Your task to perform on an android device: toggle wifi Image 0: 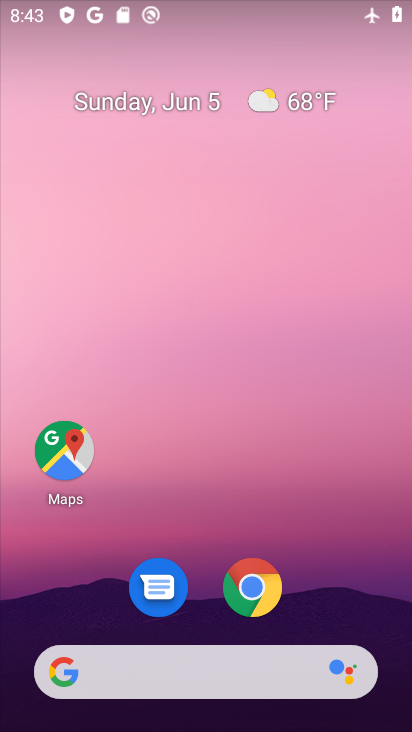
Step 0: click (398, 475)
Your task to perform on an android device: toggle wifi Image 1: 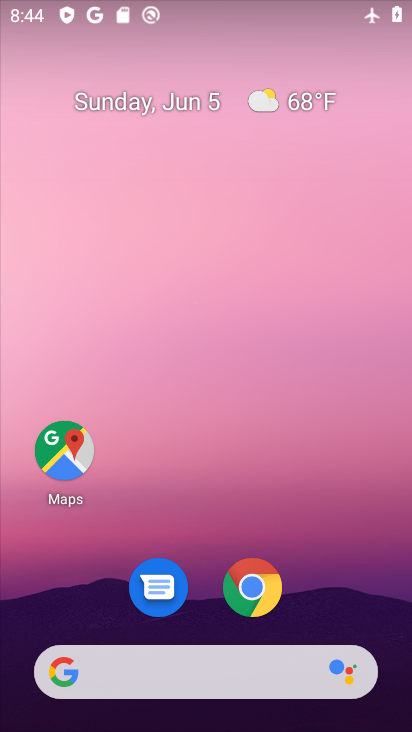
Step 1: drag from (331, 603) to (249, 129)
Your task to perform on an android device: toggle wifi Image 2: 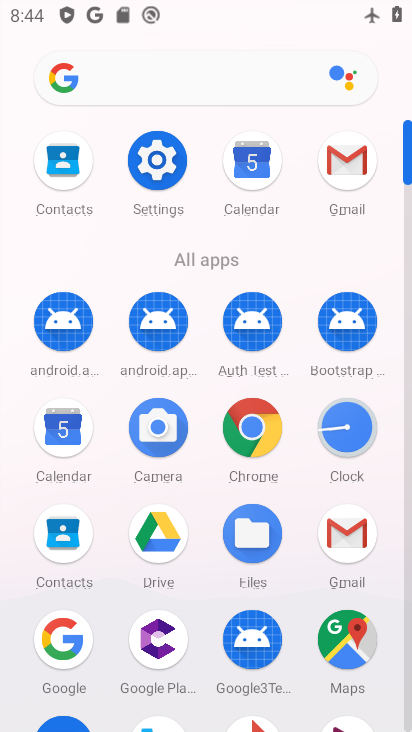
Step 2: click (167, 162)
Your task to perform on an android device: toggle wifi Image 3: 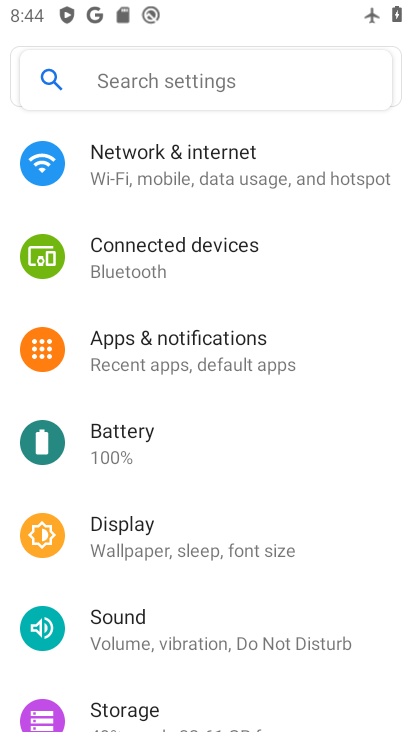
Step 3: click (128, 171)
Your task to perform on an android device: toggle wifi Image 4: 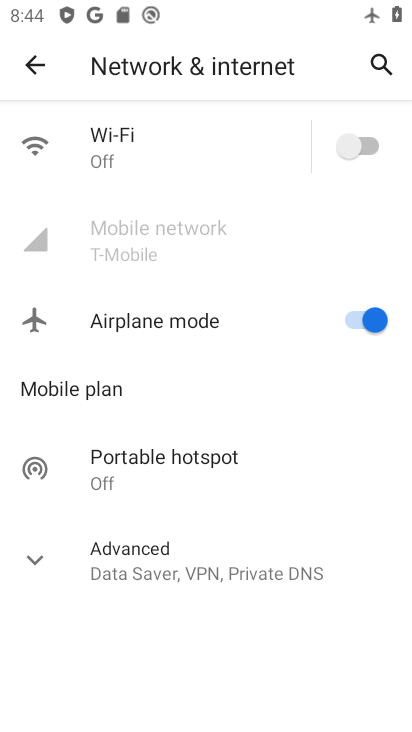
Step 4: click (372, 143)
Your task to perform on an android device: toggle wifi Image 5: 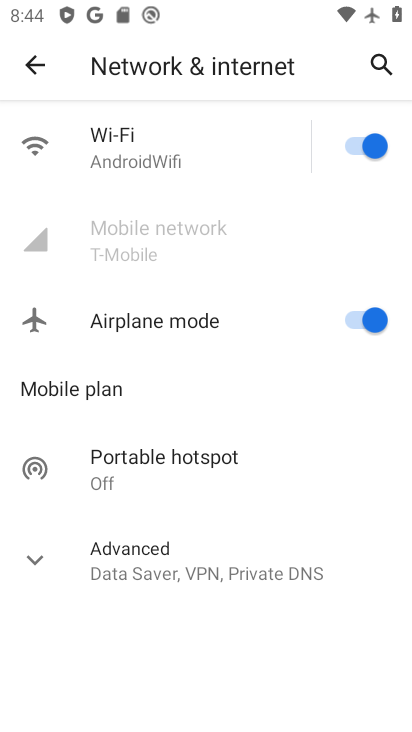
Step 5: task complete